Your task to perform on an android device: find snoozed emails in the gmail app Image 0: 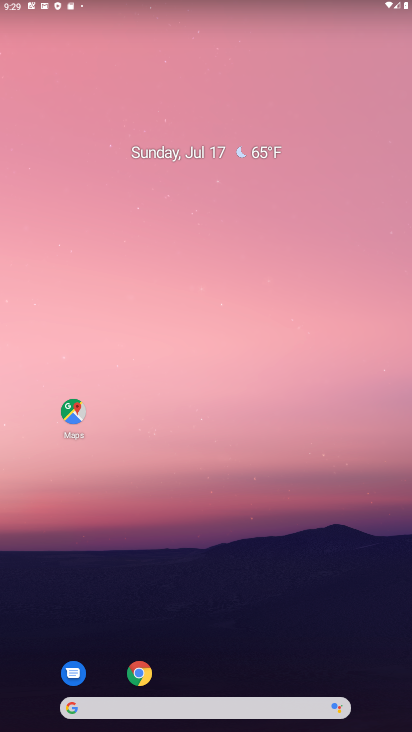
Step 0: drag from (280, 617) to (262, 76)
Your task to perform on an android device: find snoozed emails in the gmail app Image 1: 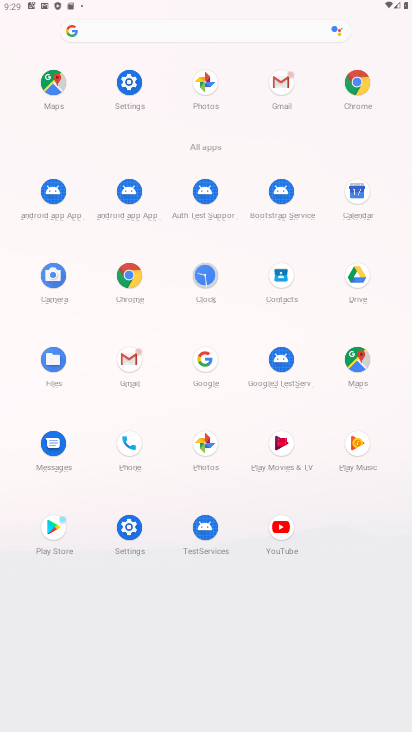
Step 1: click (285, 84)
Your task to perform on an android device: find snoozed emails in the gmail app Image 2: 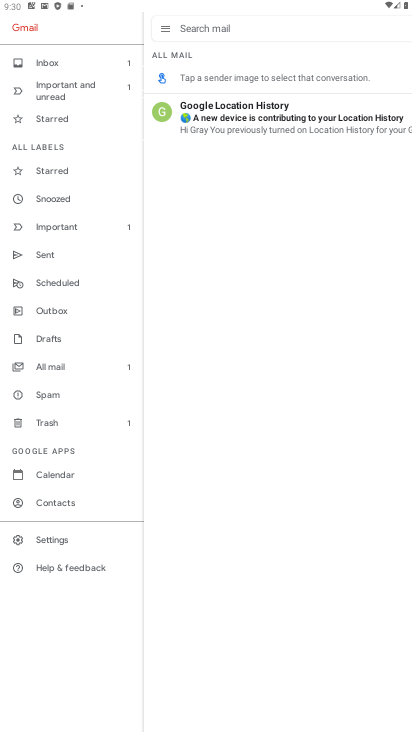
Step 2: click (52, 195)
Your task to perform on an android device: find snoozed emails in the gmail app Image 3: 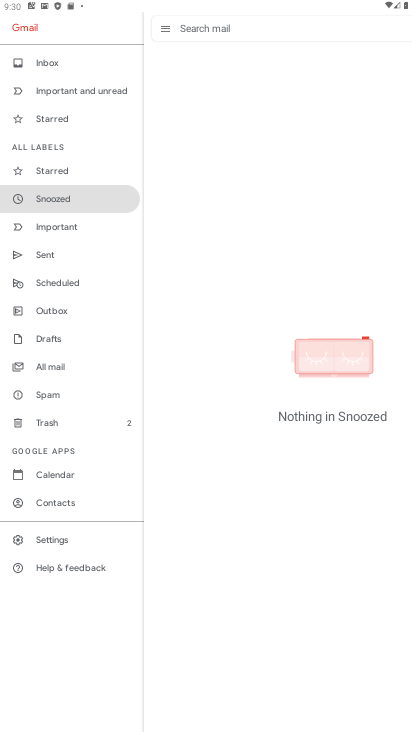
Step 3: task complete